Your task to perform on an android device: check data usage Image 0: 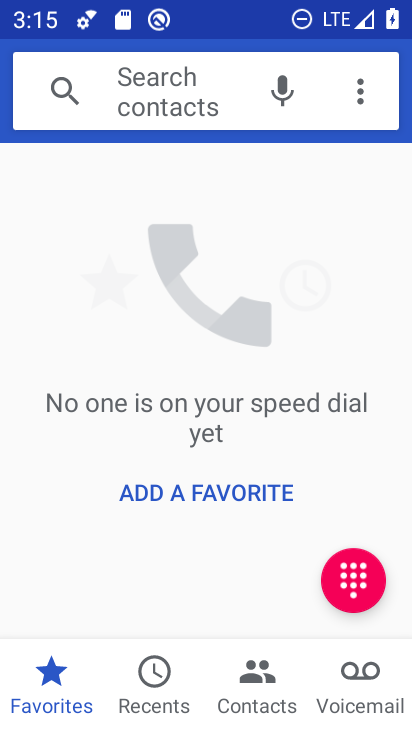
Step 0: press home button
Your task to perform on an android device: check data usage Image 1: 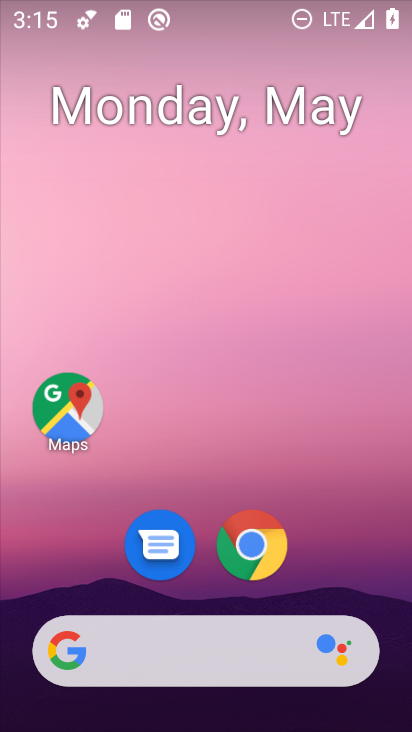
Step 1: drag from (323, 246) to (323, 207)
Your task to perform on an android device: check data usage Image 2: 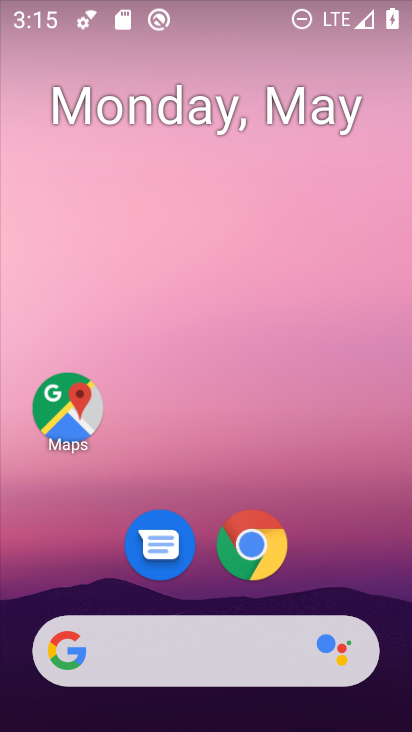
Step 2: drag from (305, 569) to (351, 93)
Your task to perform on an android device: check data usage Image 3: 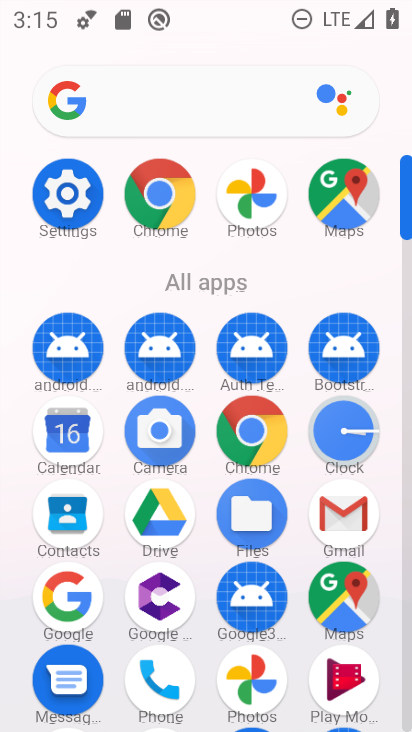
Step 3: click (81, 205)
Your task to perform on an android device: check data usage Image 4: 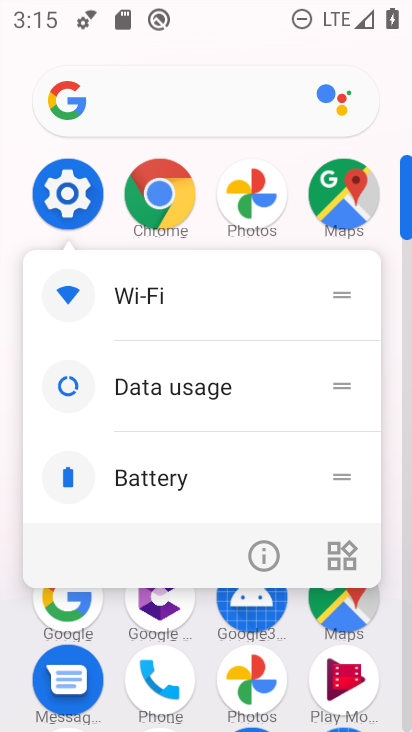
Step 4: click (77, 193)
Your task to perform on an android device: check data usage Image 5: 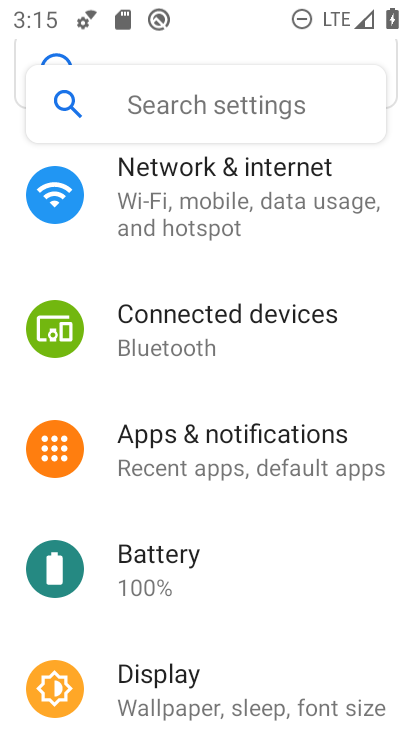
Step 5: click (200, 211)
Your task to perform on an android device: check data usage Image 6: 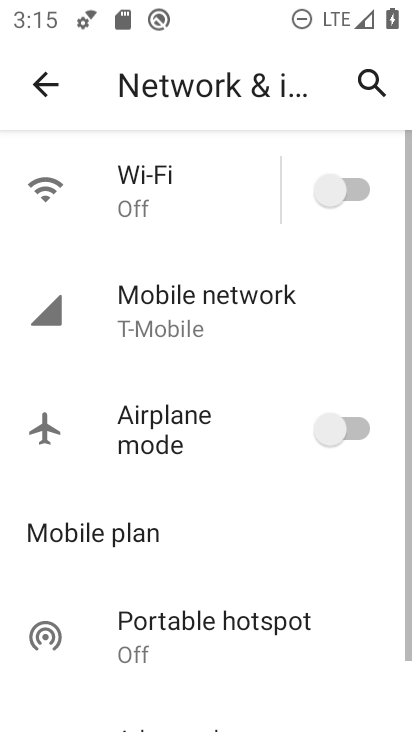
Step 6: click (190, 313)
Your task to perform on an android device: check data usage Image 7: 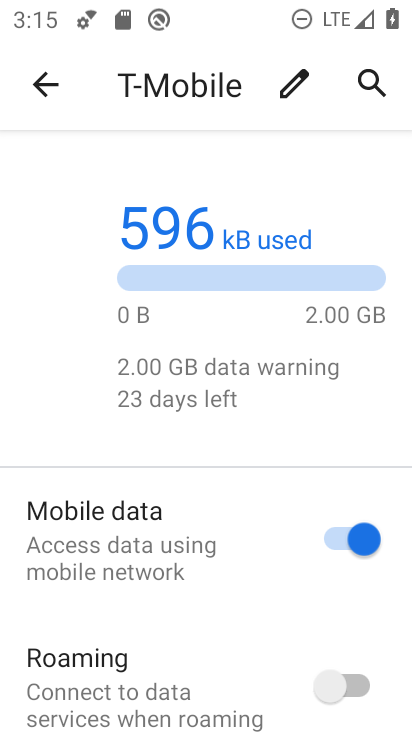
Step 7: drag from (235, 638) to (250, 242)
Your task to perform on an android device: check data usage Image 8: 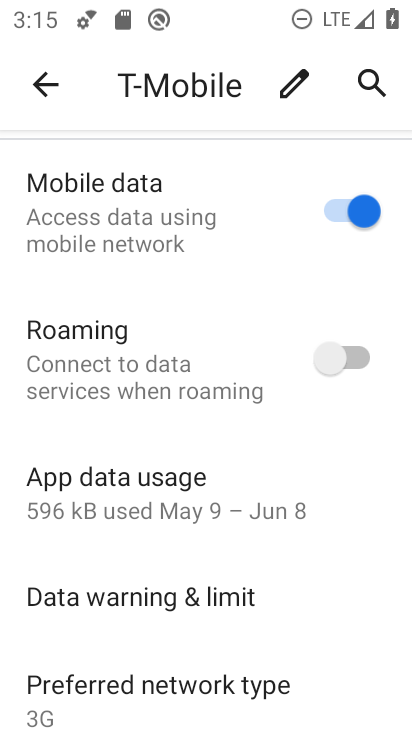
Step 8: click (210, 521)
Your task to perform on an android device: check data usage Image 9: 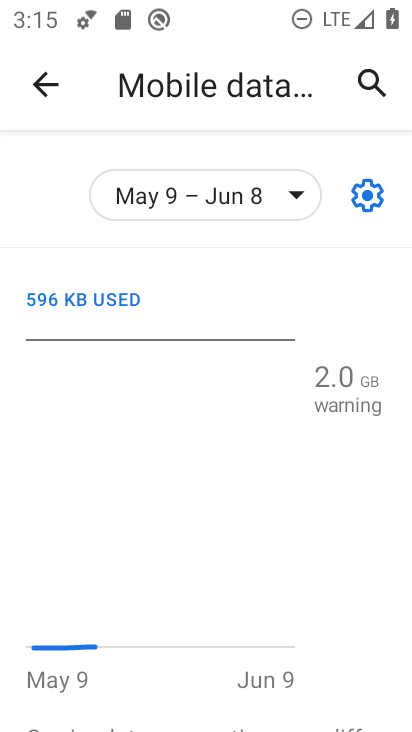
Step 9: task complete